Your task to perform on an android device: Open the phone app and click the voicemail tab. Image 0: 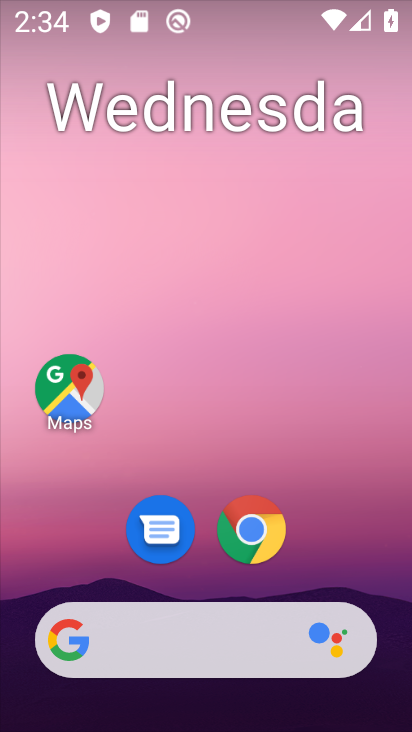
Step 0: drag from (327, 535) to (337, 111)
Your task to perform on an android device: Open the phone app and click the voicemail tab. Image 1: 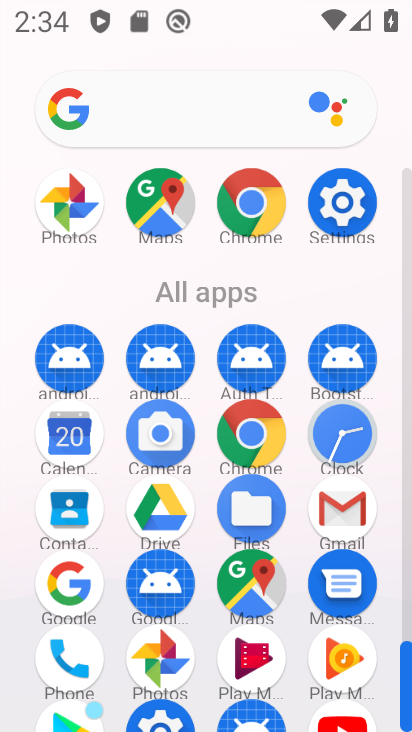
Step 1: click (76, 643)
Your task to perform on an android device: Open the phone app and click the voicemail tab. Image 2: 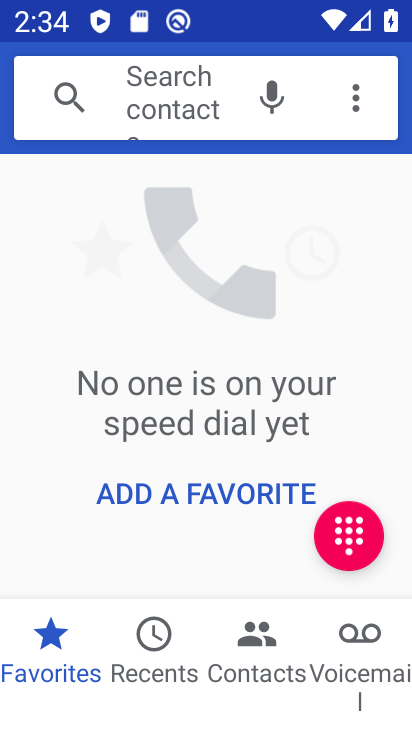
Step 2: click (353, 659)
Your task to perform on an android device: Open the phone app and click the voicemail tab. Image 3: 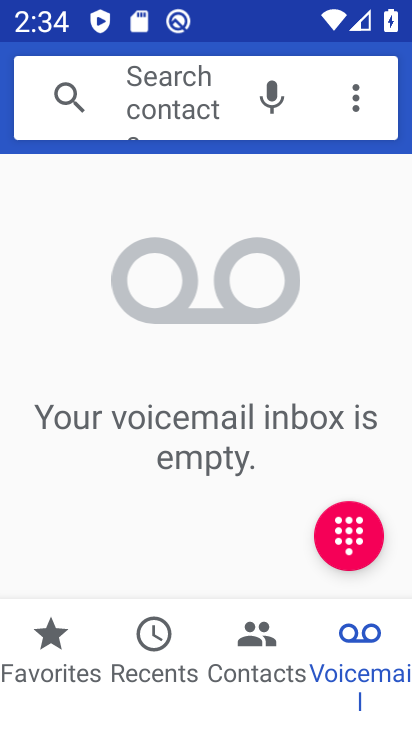
Step 3: task complete